Your task to perform on an android device: Go to display settings Image 0: 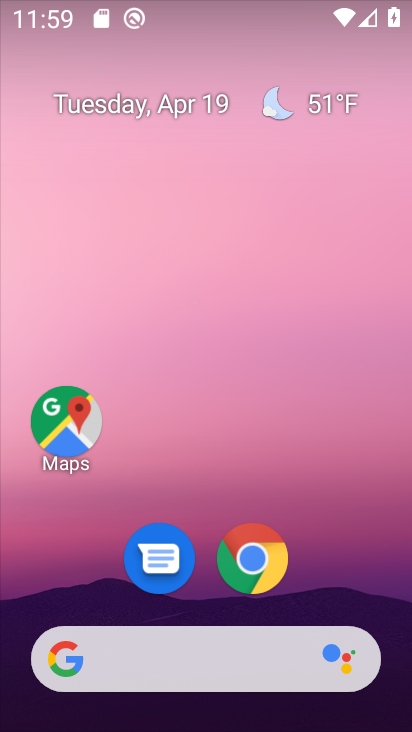
Step 0: drag from (380, 609) to (328, 242)
Your task to perform on an android device: Go to display settings Image 1: 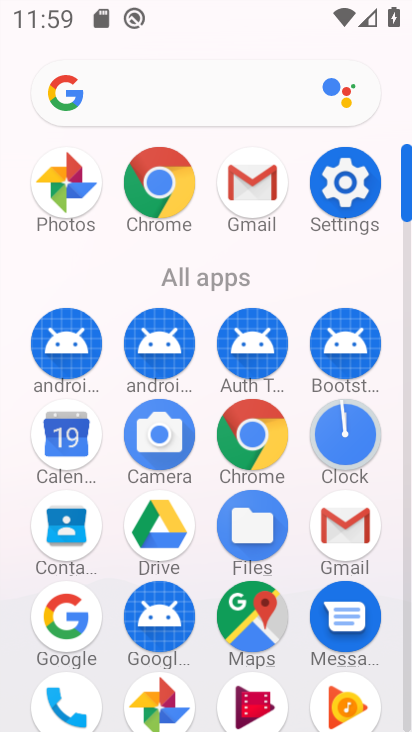
Step 1: click (408, 693)
Your task to perform on an android device: Go to display settings Image 2: 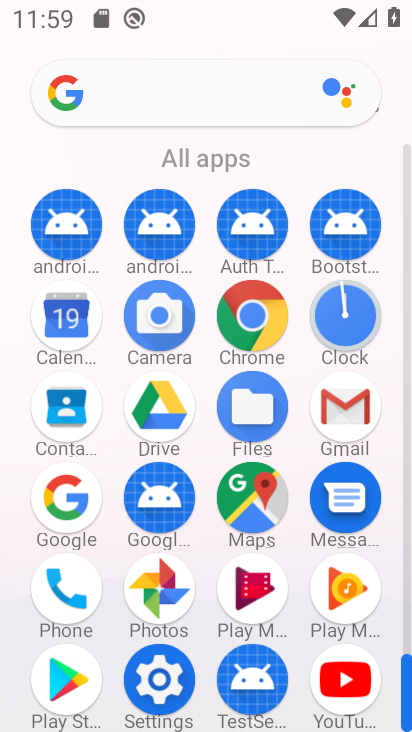
Step 2: click (163, 681)
Your task to perform on an android device: Go to display settings Image 3: 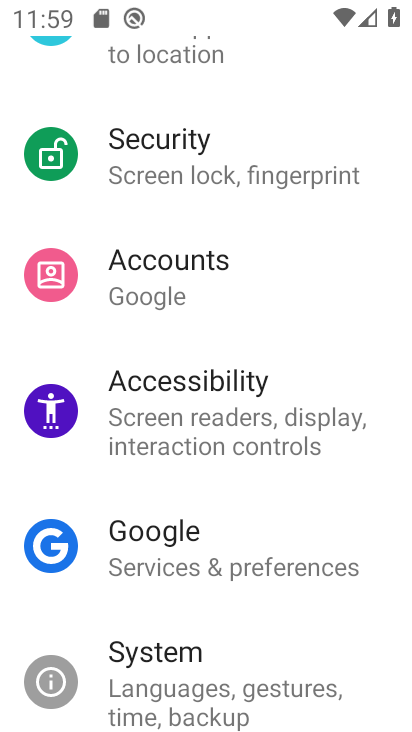
Step 3: drag from (308, 296) to (305, 547)
Your task to perform on an android device: Go to display settings Image 4: 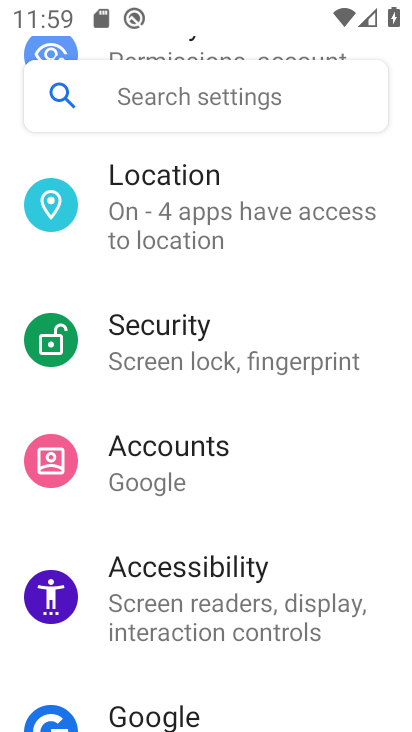
Step 4: drag from (321, 309) to (292, 581)
Your task to perform on an android device: Go to display settings Image 5: 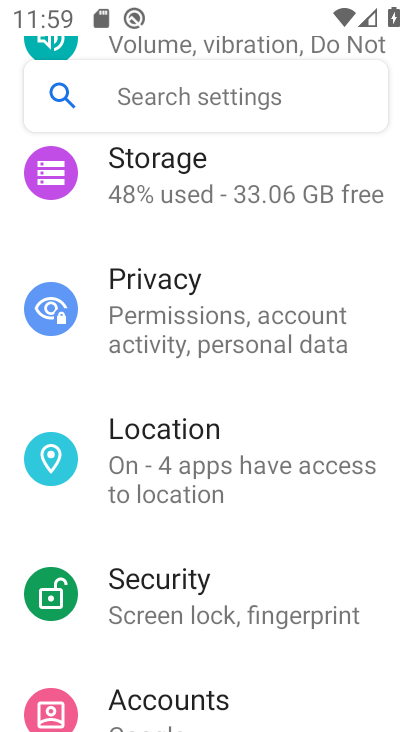
Step 5: drag from (322, 356) to (307, 542)
Your task to perform on an android device: Go to display settings Image 6: 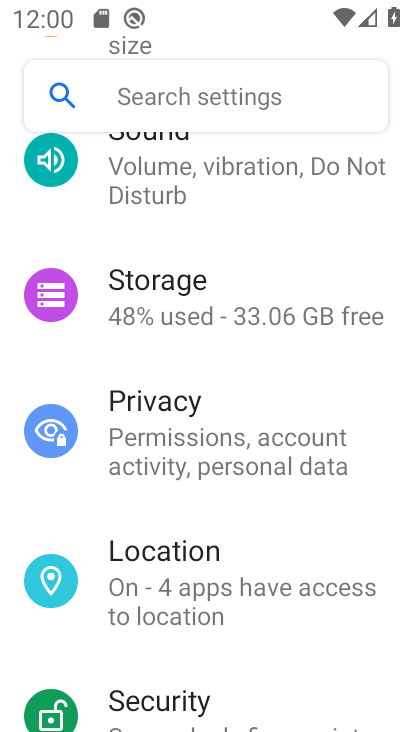
Step 6: drag from (332, 279) to (309, 534)
Your task to perform on an android device: Go to display settings Image 7: 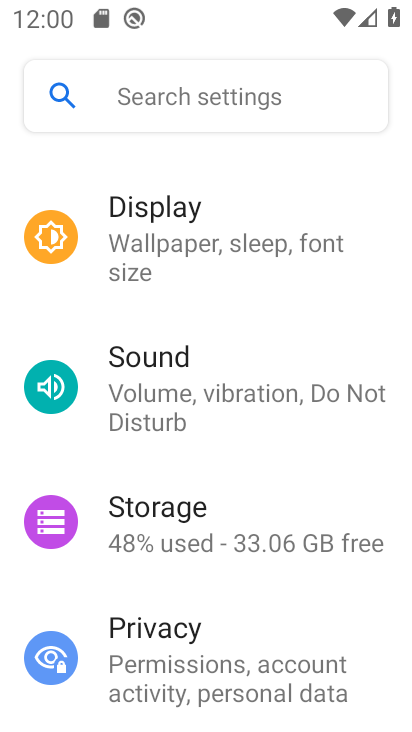
Step 7: drag from (295, 299) to (286, 541)
Your task to perform on an android device: Go to display settings Image 8: 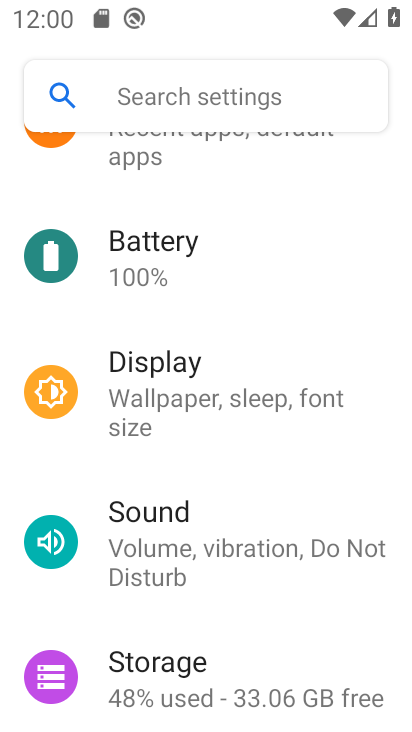
Step 8: click (144, 390)
Your task to perform on an android device: Go to display settings Image 9: 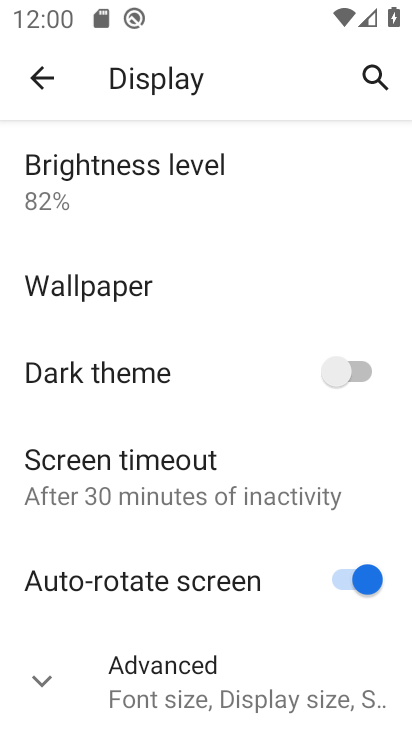
Step 9: drag from (252, 562) to (239, 249)
Your task to perform on an android device: Go to display settings Image 10: 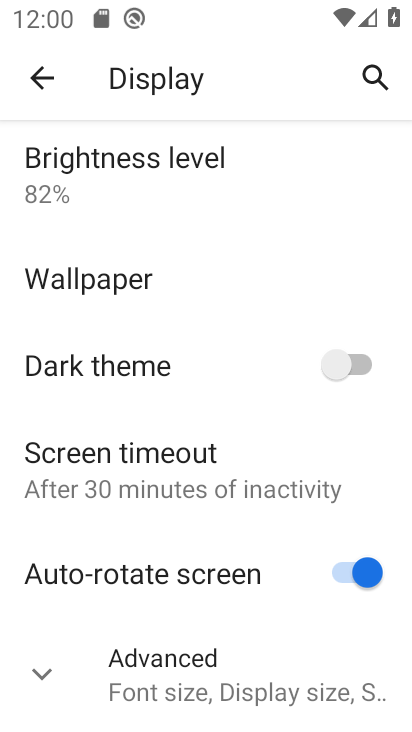
Step 10: click (42, 674)
Your task to perform on an android device: Go to display settings Image 11: 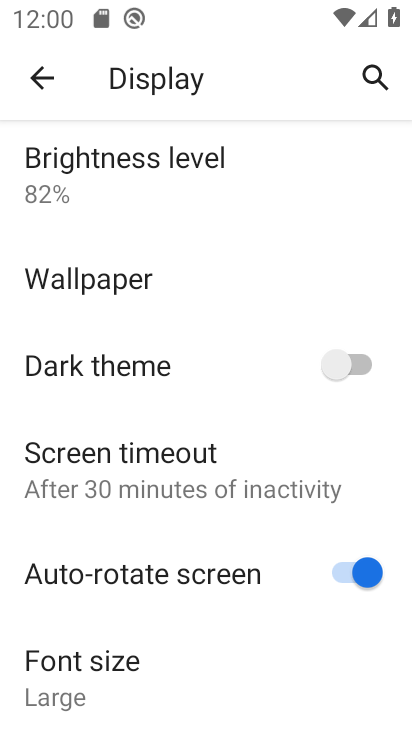
Step 11: task complete